Your task to perform on an android device: Open privacy settings Image 0: 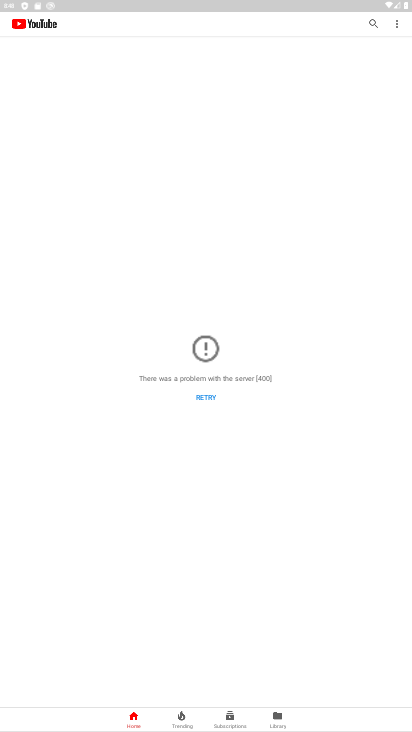
Step 0: press home button
Your task to perform on an android device: Open privacy settings Image 1: 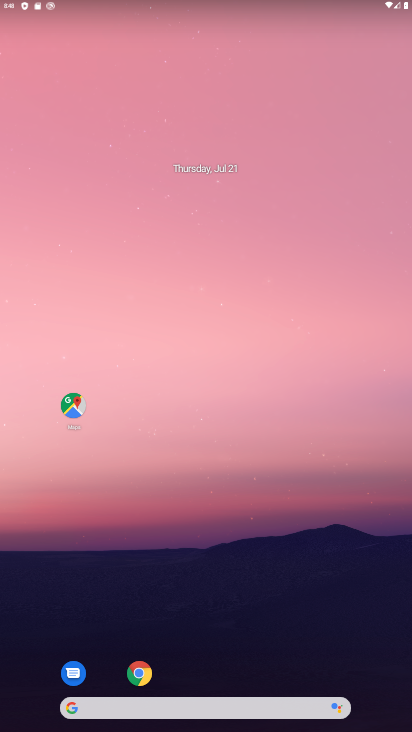
Step 1: drag from (297, 630) to (304, 96)
Your task to perform on an android device: Open privacy settings Image 2: 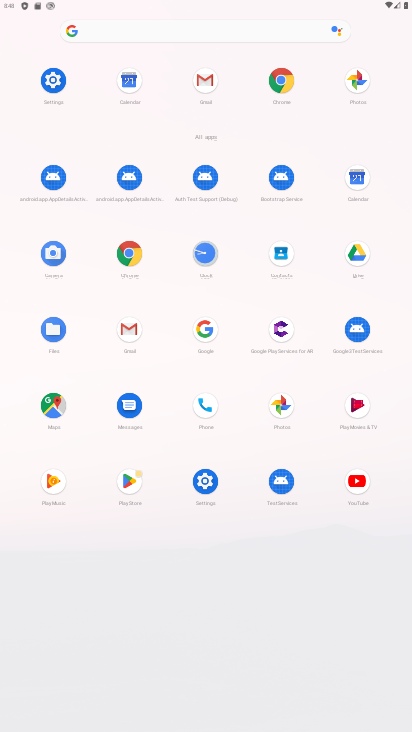
Step 2: click (210, 488)
Your task to perform on an android device: Open privacy settings Image 3: 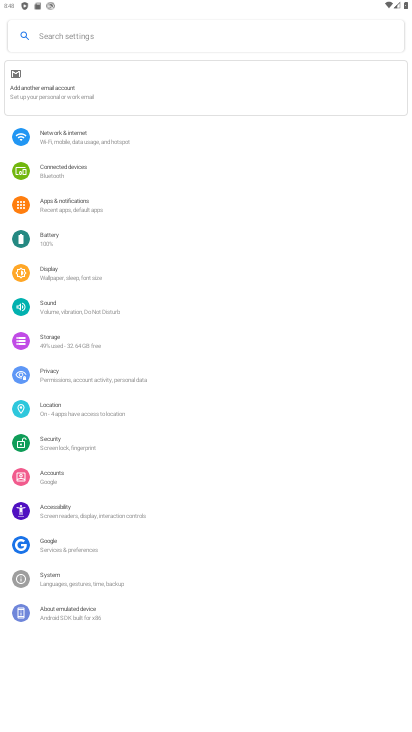
Step 3: click (101, 379)
Your task to perform on an android device: Open privacy settings Image 4: 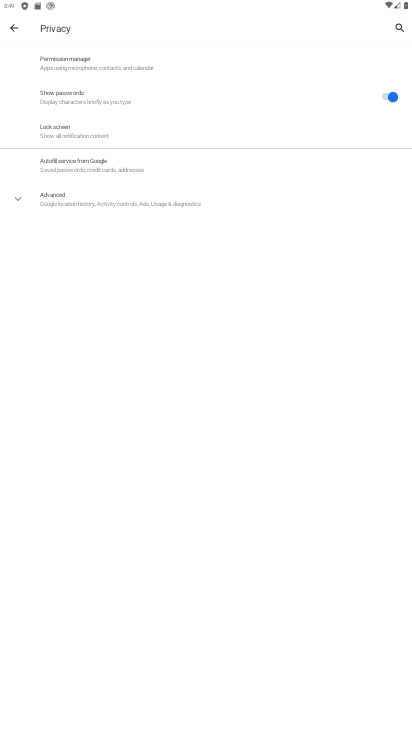
Step 4: task complete